Your task to perform on an android device: Open accessibility settings Image 0: 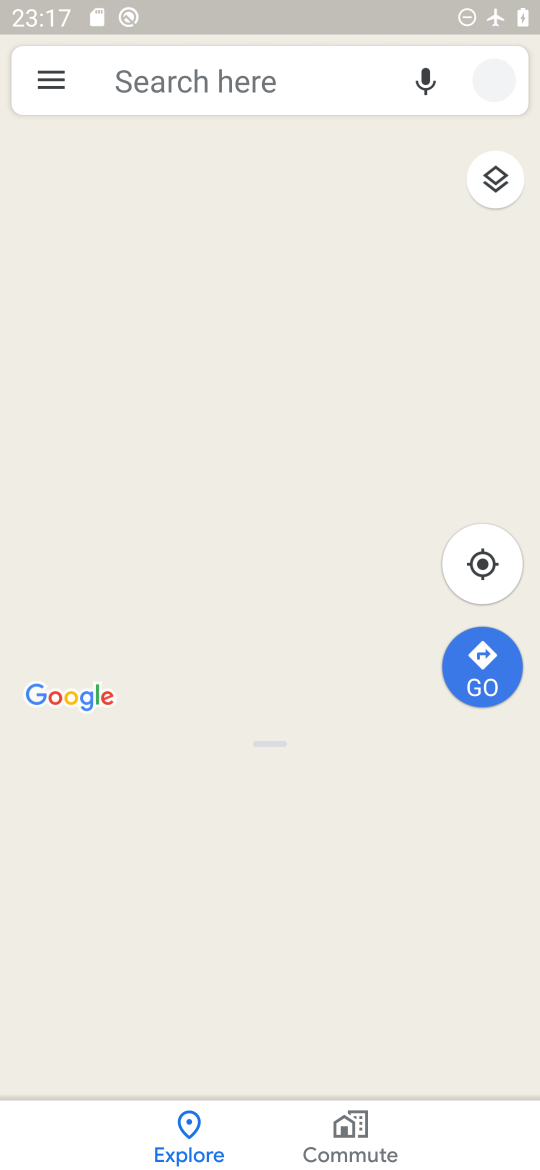
Step 0: press home button
Your task to perform on an android device: Open accessibility settings Image 1: 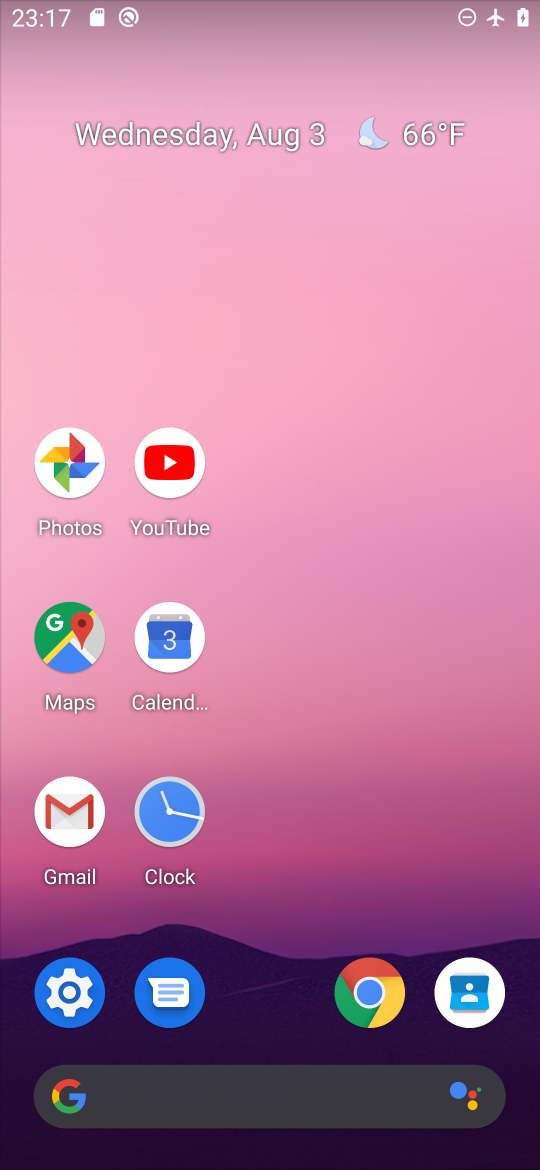
Step 1: click (64, 989)
Your task to perform on an android device: Open accessibility settings Image 2: 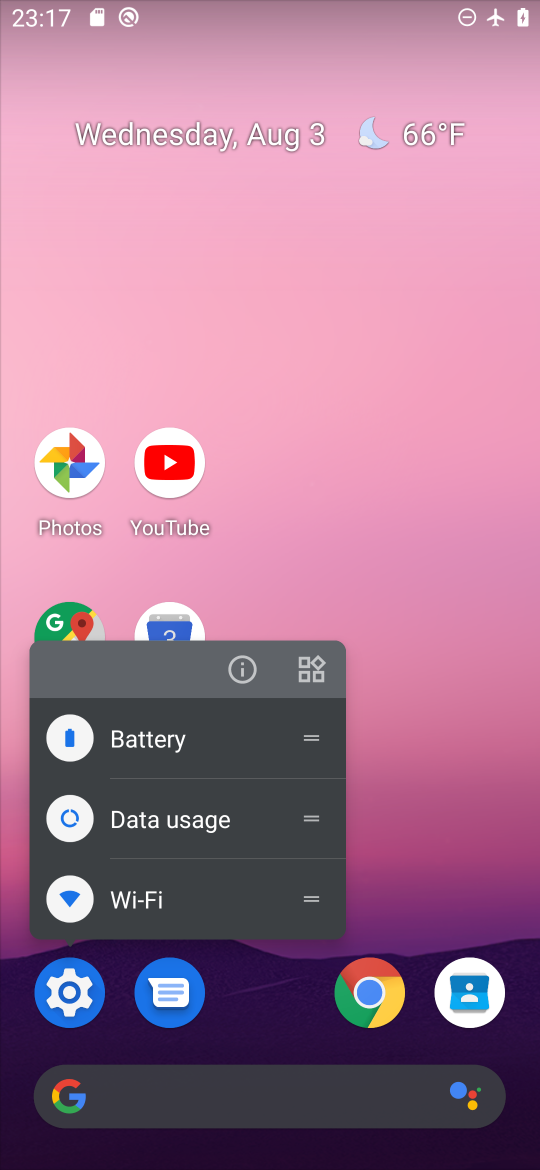
Step 2: click (61, 998)
Your task to perform on an android device: Open accessibility settings Image 3: 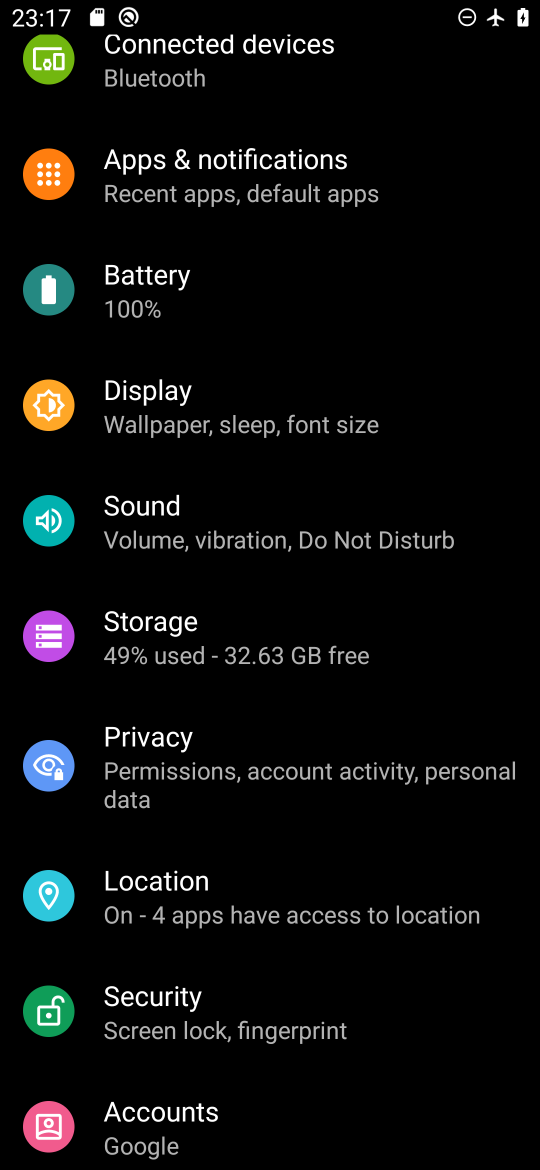
Step 3: drag from (377, 1066) to (343, 585)
Your task to perform on an android device: Open accessibility settings Image 4: 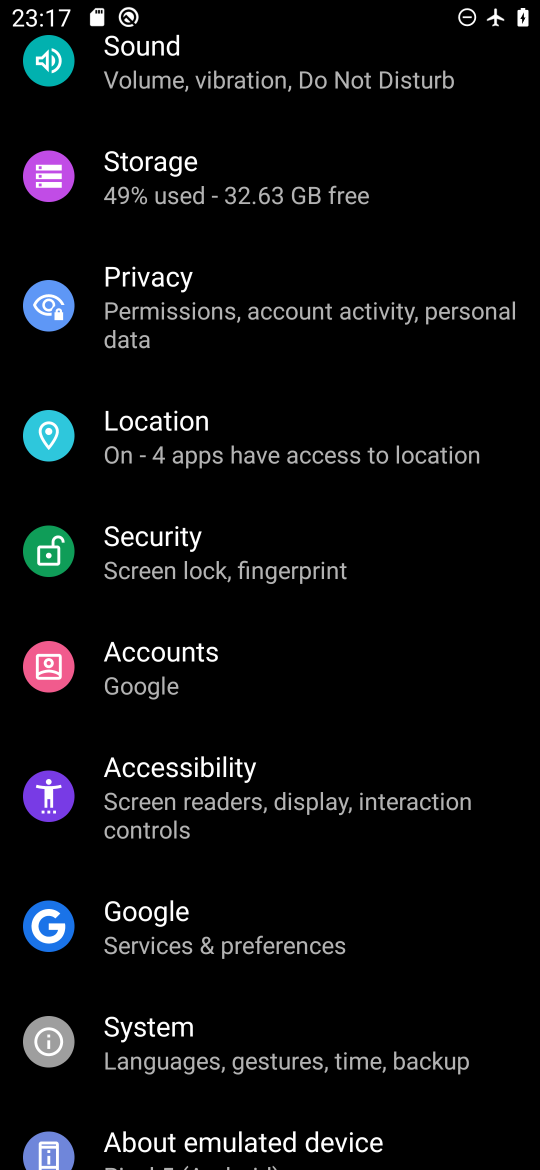
Step 4: click (210, 761)
Your task to perform on an android device: Open accessibility settings Image 5: 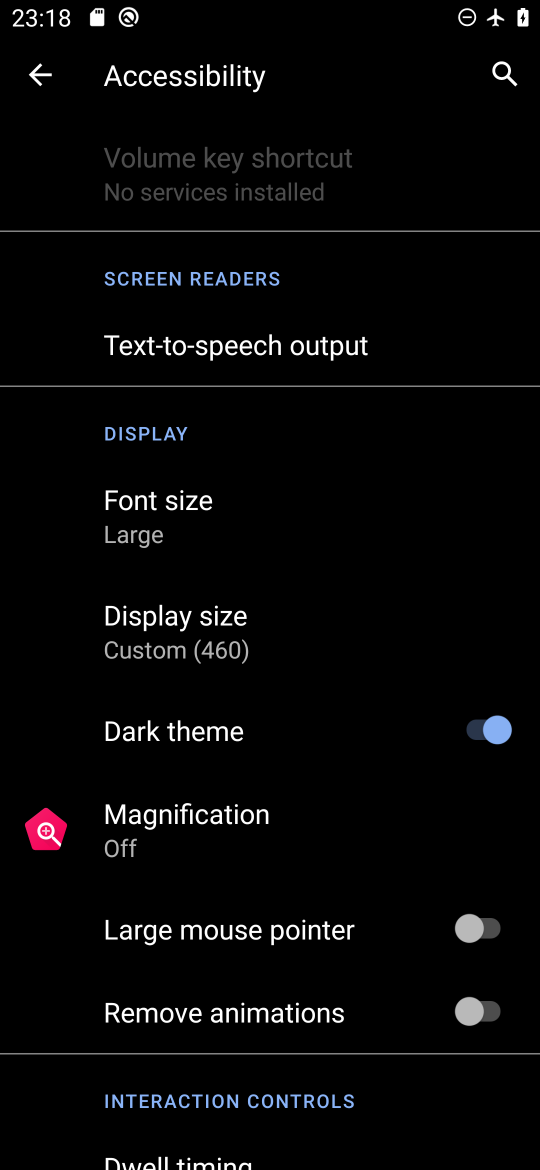
Step 5: task complete